Your task to perform on an android device: Open calendar and show me the first week of next month Image 0: 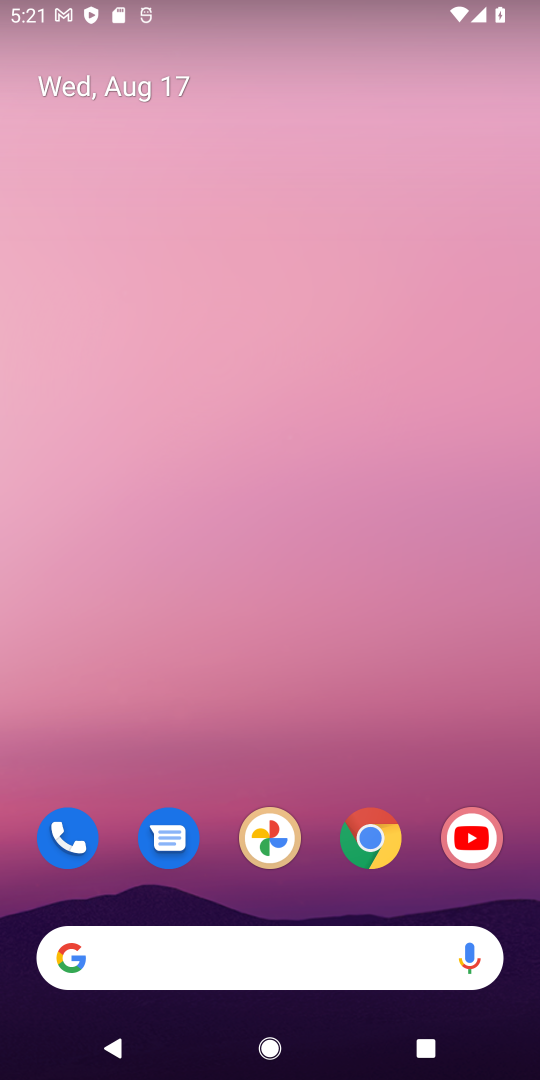
Step 0: drag from (325, 938) to (88, 106)
Your task to perform on an android device: Open calendar and show me the first week of next month Image 1: 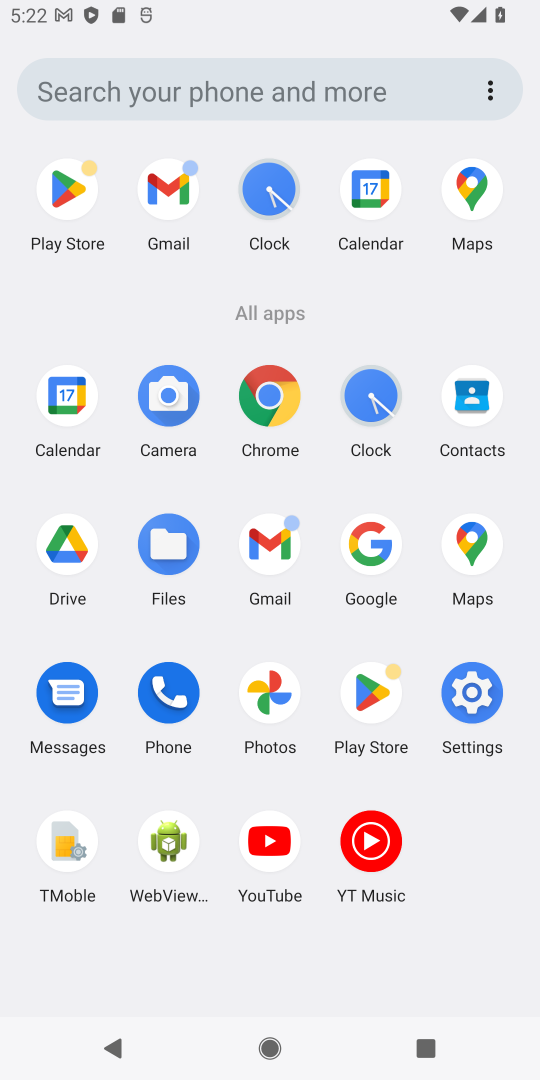
Step 1: click (57, 418)
Your task to perform on an android device: Open calendar and show me the first week of next month Image 2: 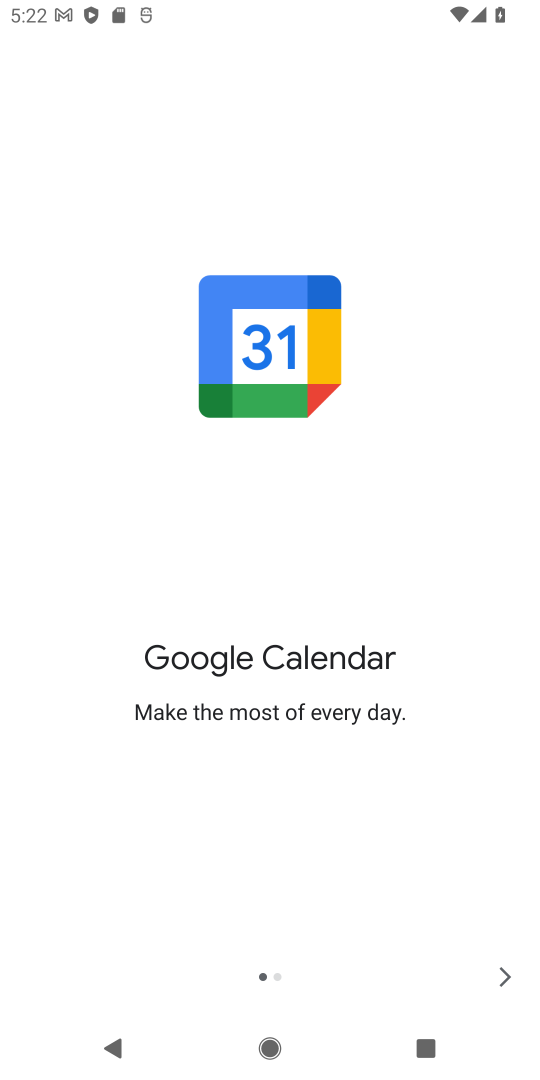
Step 2: click (537, 964)
Your task to perform on an android device: Open calendar and show me the first week of next month Image 3: 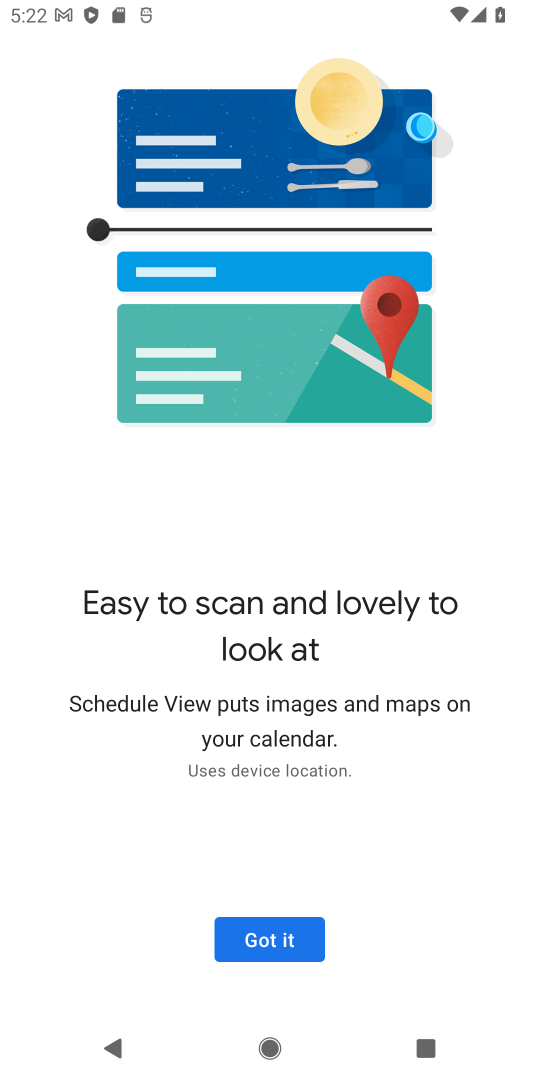
Step 3: click (311, 949)
Your task to perform on an android device: Open calendar and show me the first week of next month Image 4: 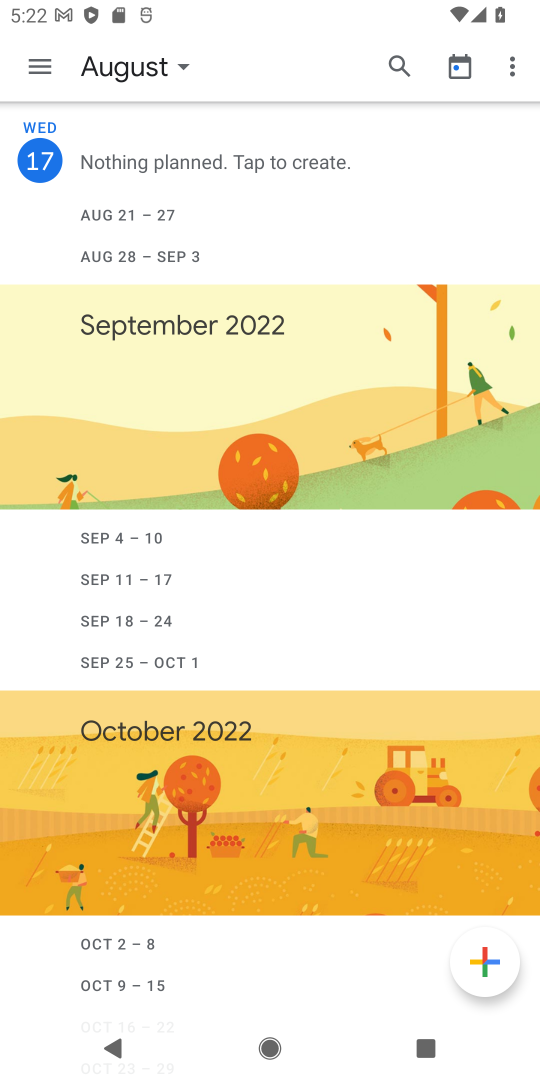
Step 4: click (38, 57)
Your task to perform on an android device: Open calendar and show me the first week of next month Image 5: 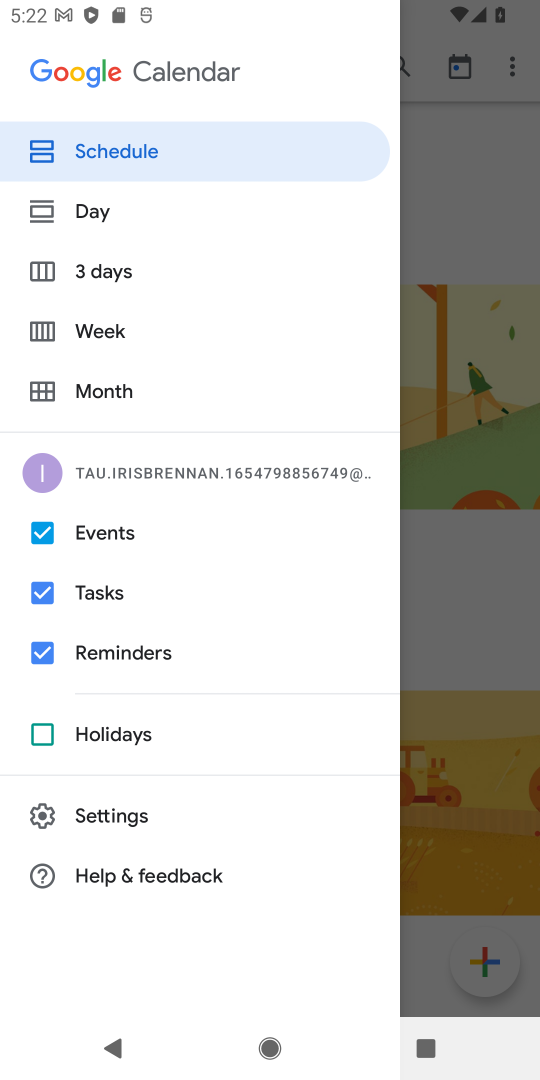
Step 5: click (84, 321)
Your task to perform on an android device: Open calendar and show me the first week of next month Image 6: 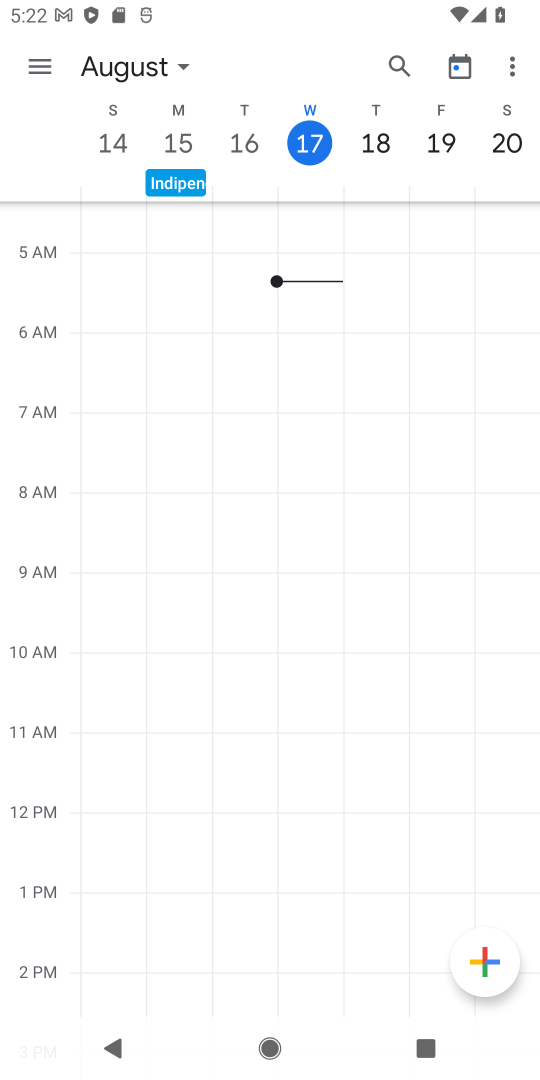
Step 6: task complete